Your task to perform on an android device: find snoozed emails in the gmail app Image 0: 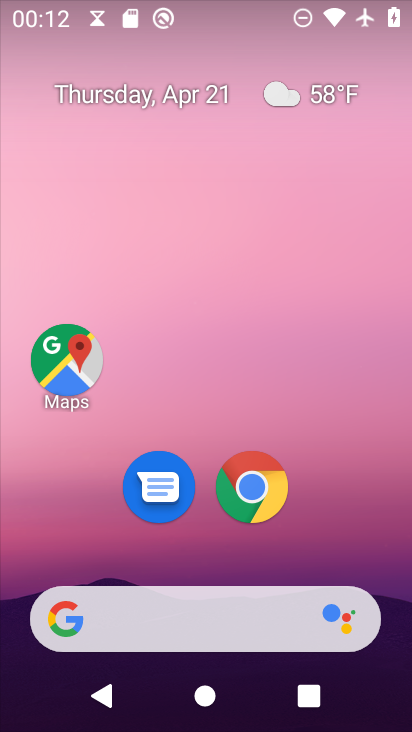
Step 0: drag from (385, 571) to (263, 33)
Your task to perform on an android device: find snoozed emails in the gmail app Image 1: 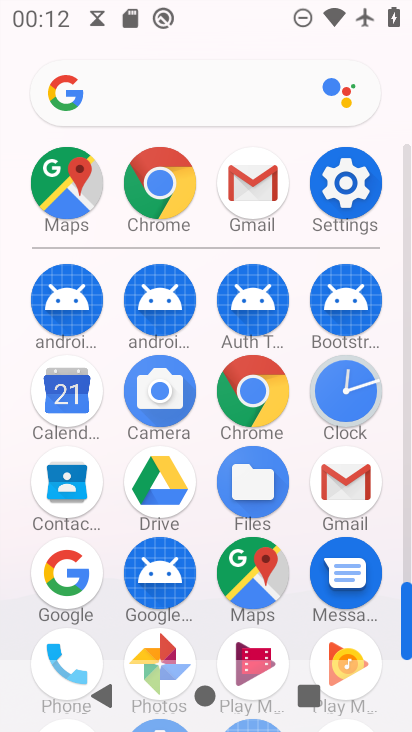
Step 1: drag from (12, 585) to (10, 301)
Your task to perform on an android device: find snoozed emails in the gmail app Image 2: 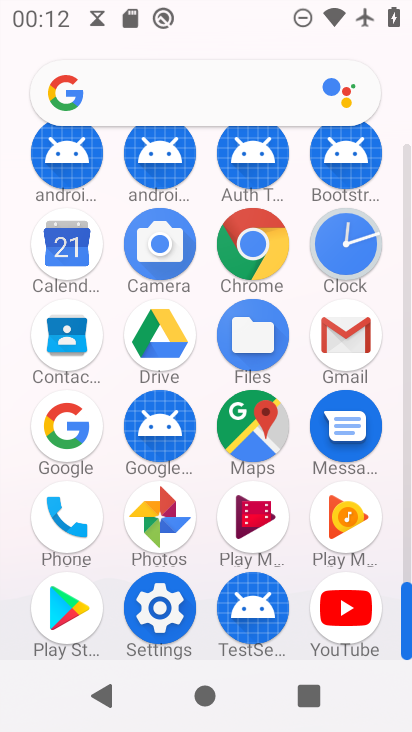
Step 2: drag from (2, 550) to (1, 237)
Your task to perform on an android device: find snoozed emails in the gmail app Image 3: 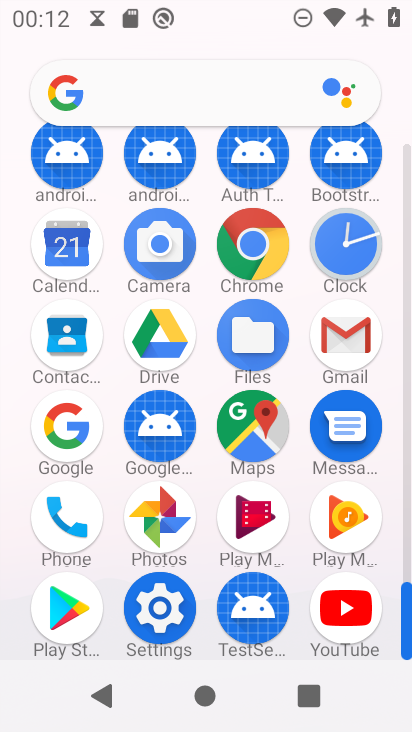
Step 3: click (353, 322)
Your task to perform on an android device: find snoozed emails in the gmail app Image 4: 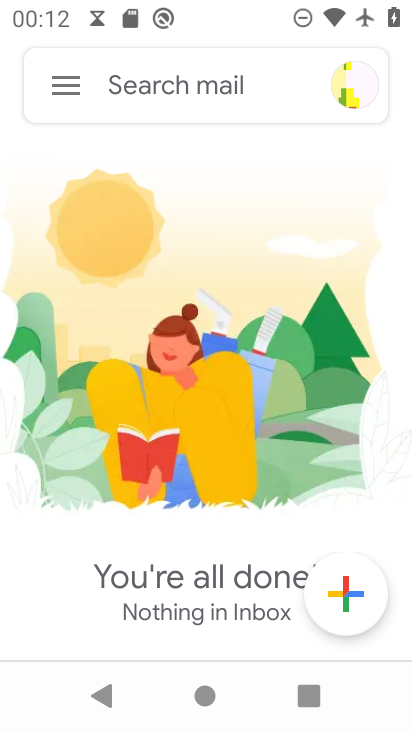
Step 4: click (49, 91)
Your task to perform on an android device: find snoozed emails in the gmail app Image 5: 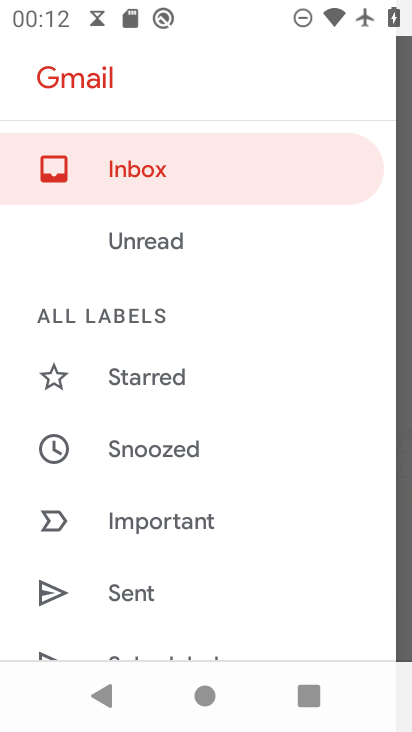
Step 5: drag from (268, 433) to (251, 49)
Your task to perform on an android device: find snoozed emails in the gmail app Image 6: 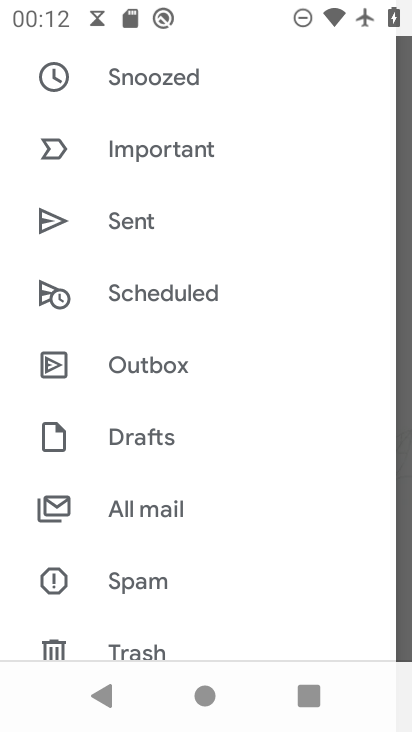
Step 6: drag from (274, 470) to (243, 130)
Your task to perform on an android device: find snoozed emails in the gmail app Image 7: 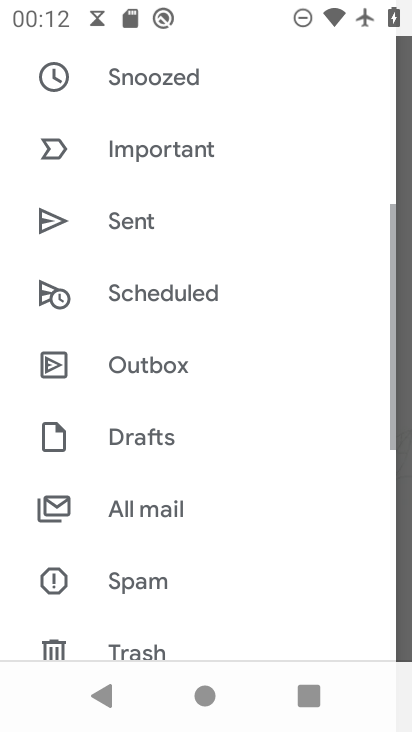
Step 7: drag from (241, 124) to (275, 429)
Your task to perform on an android device: find snoozed emails in the gmail app Image 8: 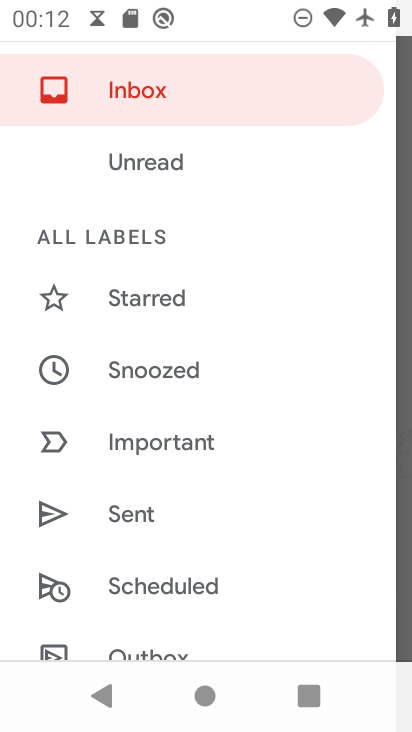
Step 8: click (178, 363)
Your task to perform on an android device: find snoozed emails in the gmail app Image 9: 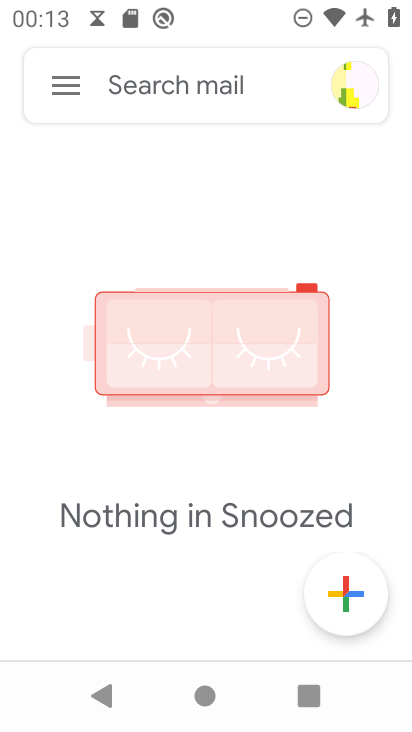
Step 9: task complete